Your task to perform on an android device: What's the weather? Image 0: 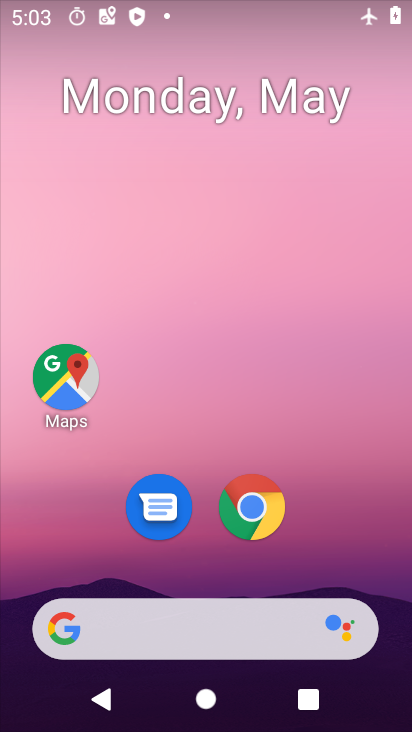
Step 0: drag from (327, 505) to (323, 95)
Your task to perform on an android device: What's the weather? Image 1: 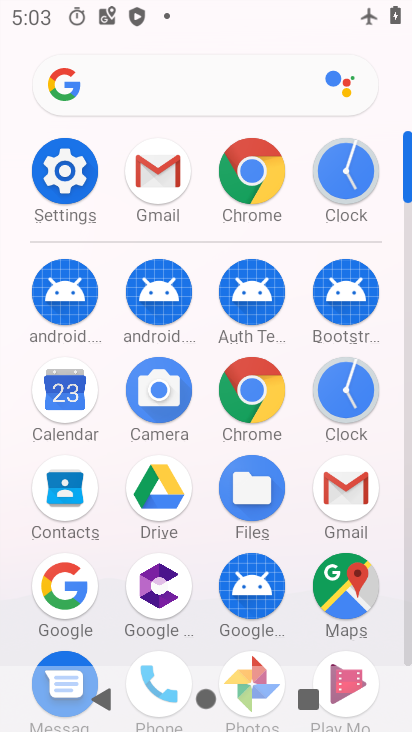
Step 1: click (84, 101)
Your task to perform on an android device: What's the weather? Image 2: 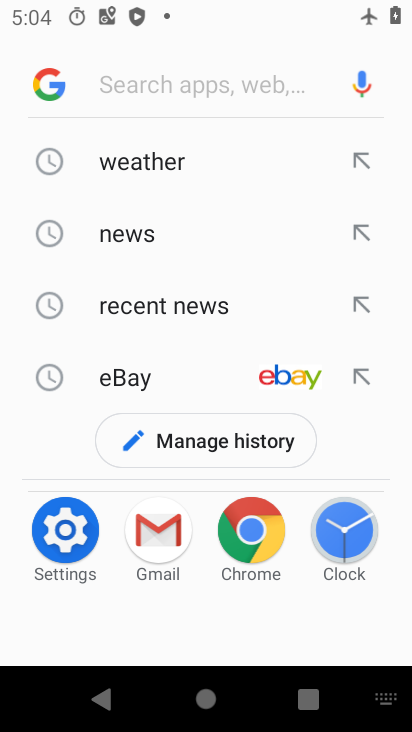
Step 2: click (71, 94)
Your task to perform on an android device: What's the weather? Image 3: 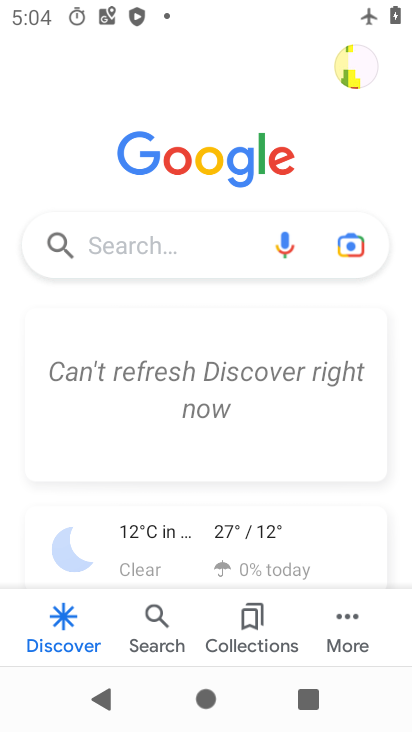
Step 3: click (204, 537)
Your task to perform on an android device: What's the weather? Image 4: 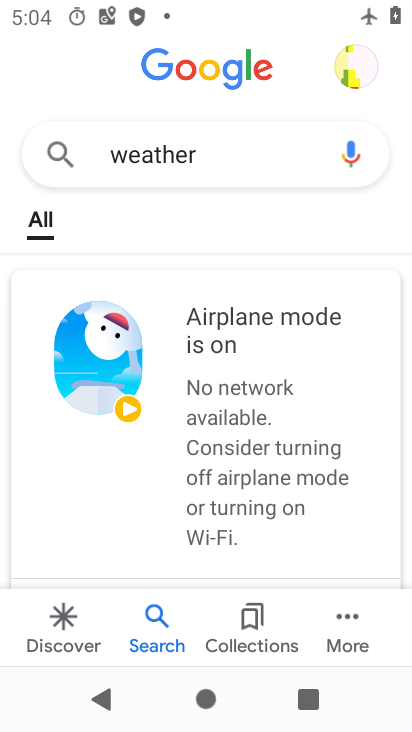
Step 4: task complete